Your task to perform on an android device: What is the news today? Image 0: 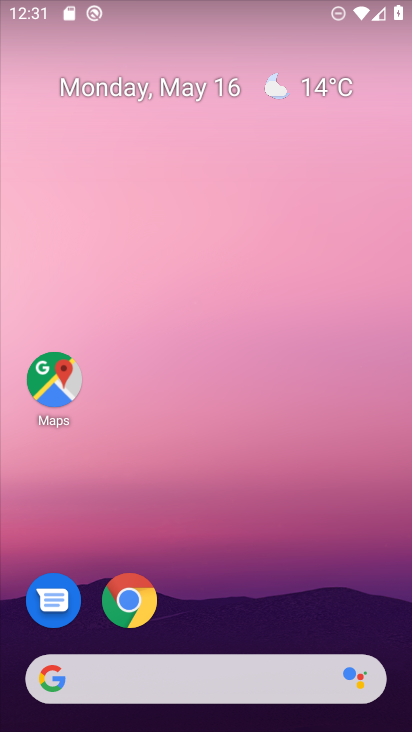
Step 0: drag from (4, 294) to (327, 313)
Your task to perform on an android device: What is the news today? Image 1: 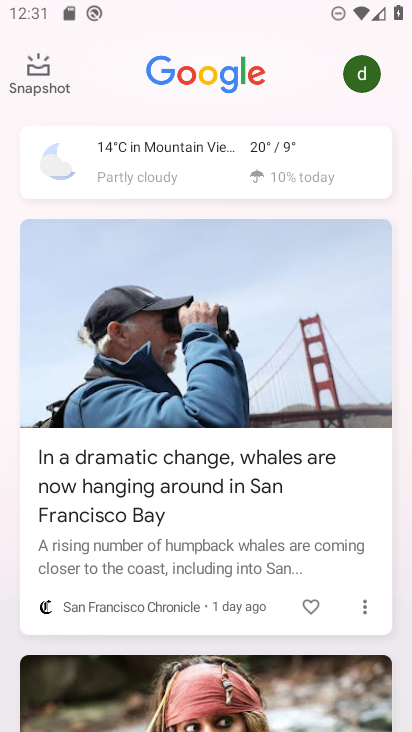
Step 1: task complete